Your task to perform on an android device: check android version Image 0: 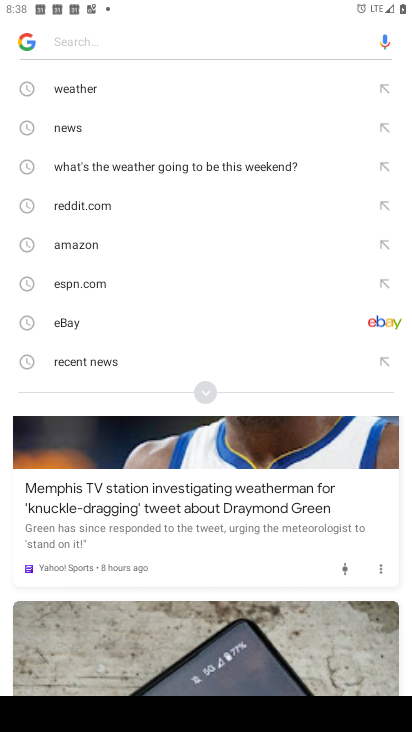
Step 0: press home button
Your task to perform on an android device: check android version Image 1: 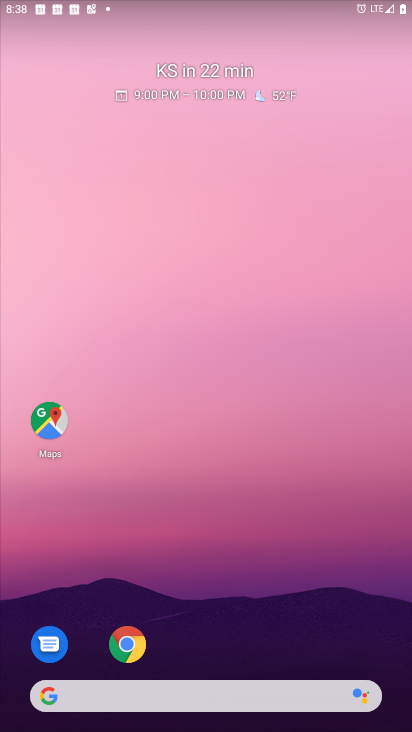
Step 1: drag from (357, 653) to (254, 123)
Your task to perform on an android device: check android version Image 2: 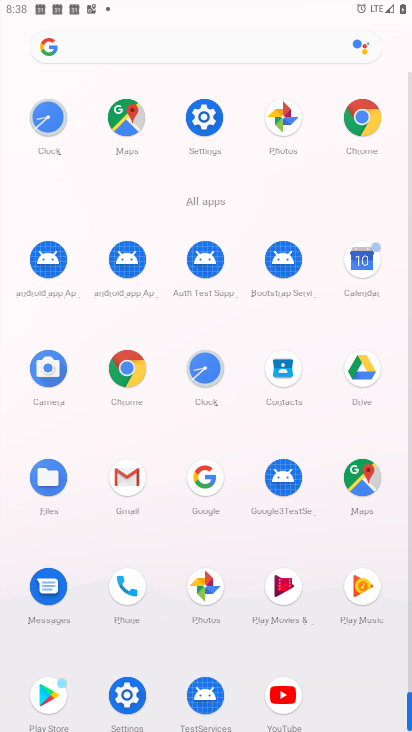
Step 2: click (126, 696)
Your task to perform on an android device: check android version Image 3: 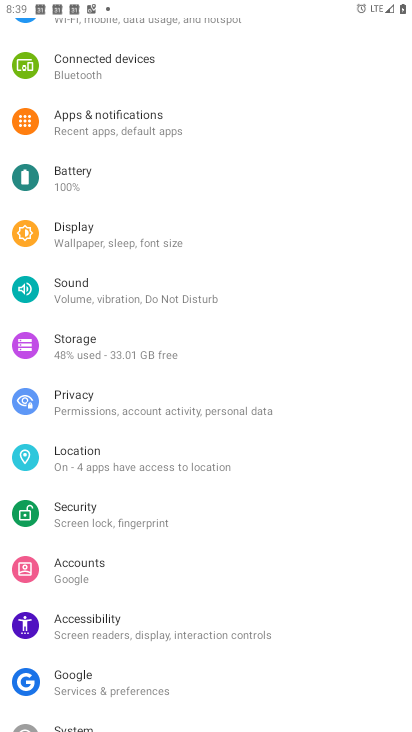
Step 3: drag from (291, 680) to (307, 348)
Your task to perform on an android device: check android version Image 4: 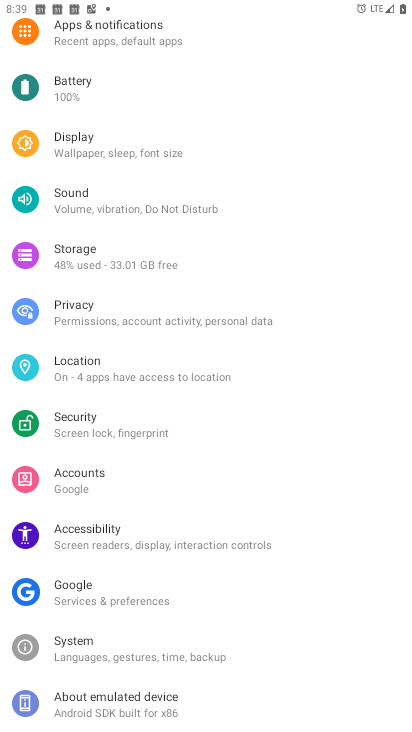
Step 4: click (102, 701)
Your task to perform on an android device: check android version Image 5: 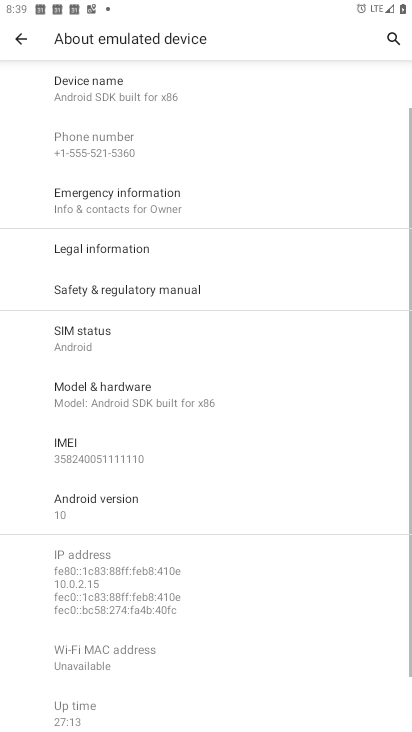
Step 5: click (79, 501)
Your task to perform on an android device: check android version Image 6: 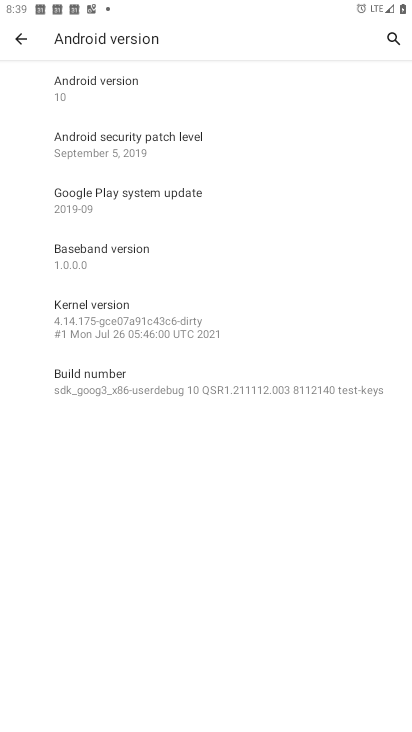
Step 6: task complete